Your task to perform on an android device: turn on the 12-hour format for clock Image 0: 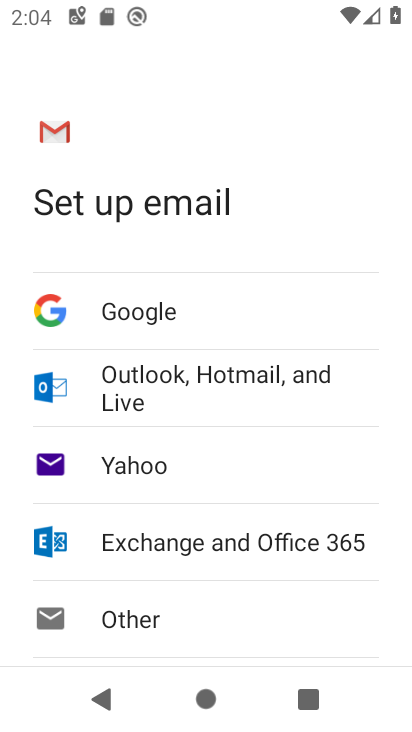
Step 0: press home button
Your task to perform on an android device: turn on the 12-hour format for clock Image 1: 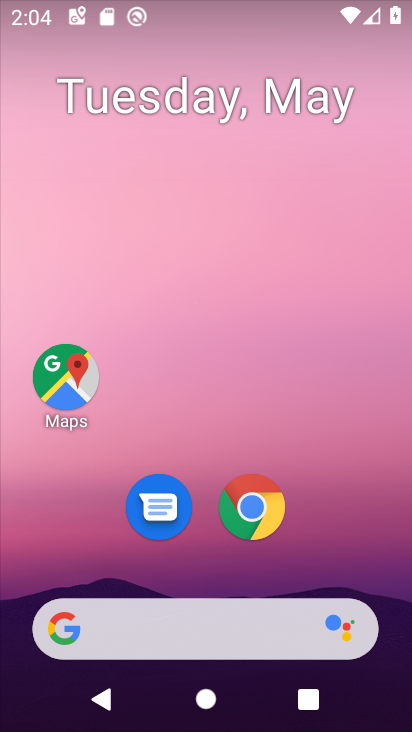
Step 1: drag from (211, 568) to (225, 201)
Your task to perform on an android device: turn on the 12-hour format for clock Image 2: 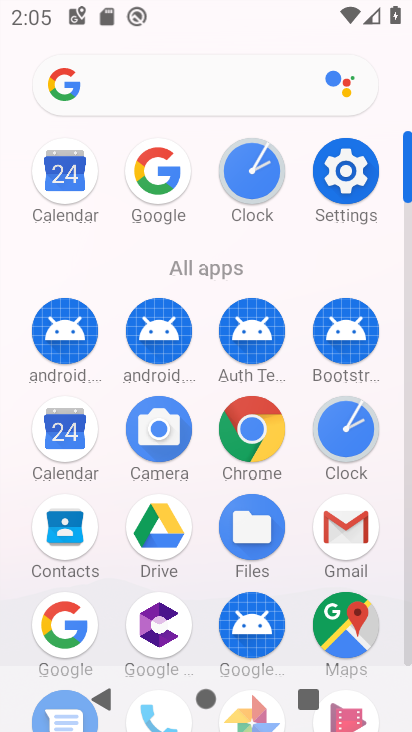
Step 2: click (269, 199)
Your task to perform on an android device: turn on the 12-hour format for clock Image 3: 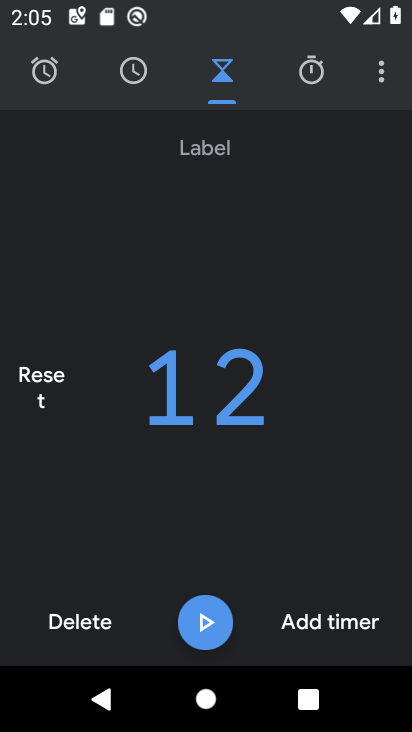
Step 3: click (395, 74)
Your task to perform on an android device: turn on the 12-hour format for clock Image 4: 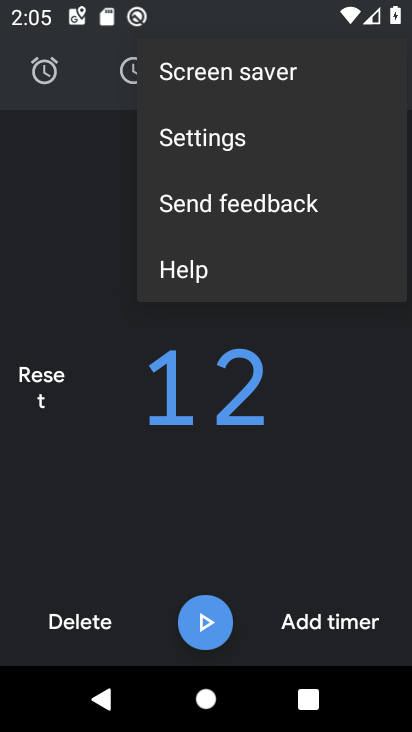
Step 4: click (233, 138)
Your task to perform on an android device: turn on the 12-hour format for clock Image 5: 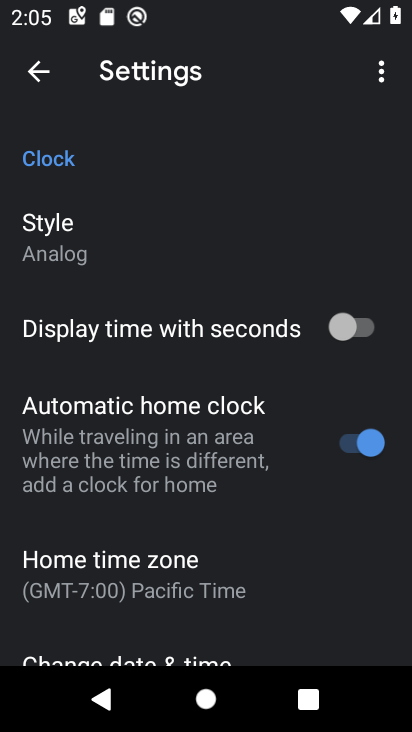
Step 5: drag from (107, 607) to (233, 250)
Your task to perform on an android device: turn on the 12-hour format for clock Image 6: 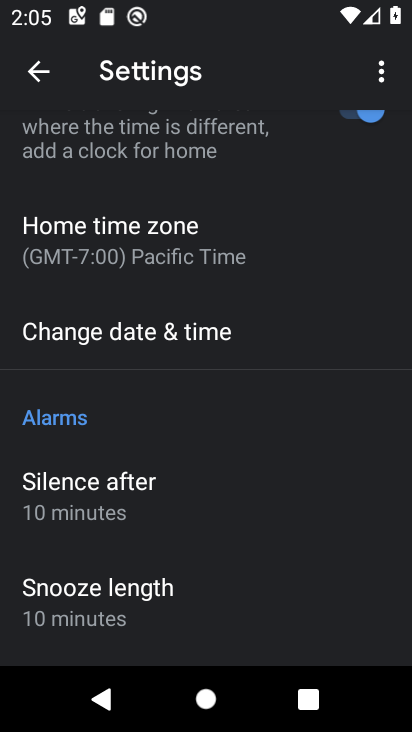
Step 6: click (188, 341)
Your task to perform on an android device: turn on the 12-hour format for clock Image 7: 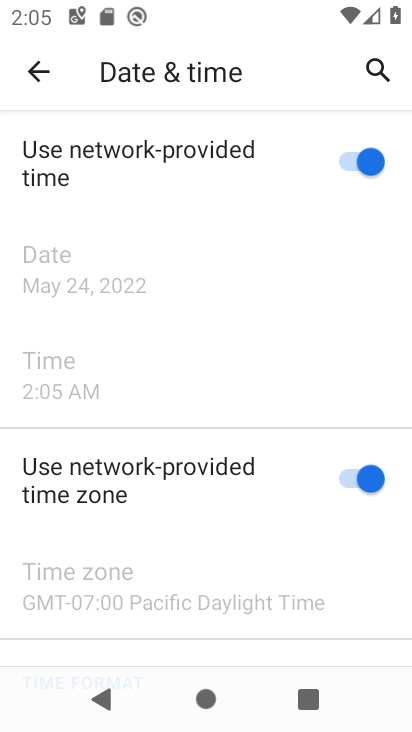
Step 7: task complete